Your task to perform on an android device: turn on location history Image 0: 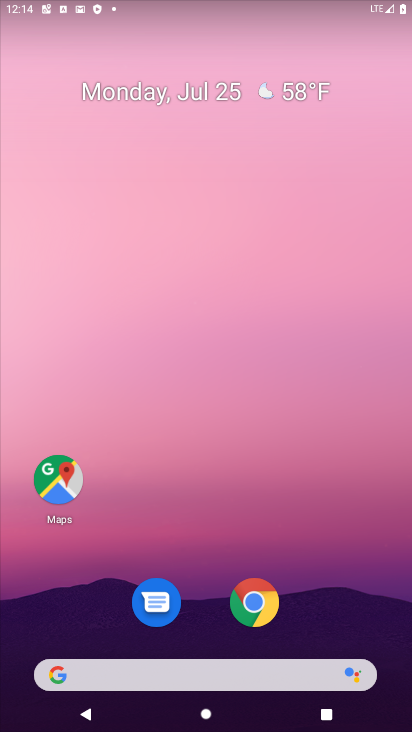
Step 0: drag from (203, 604) to (159, 182)
Your task to perform on an android device: turn on location history Image 1: 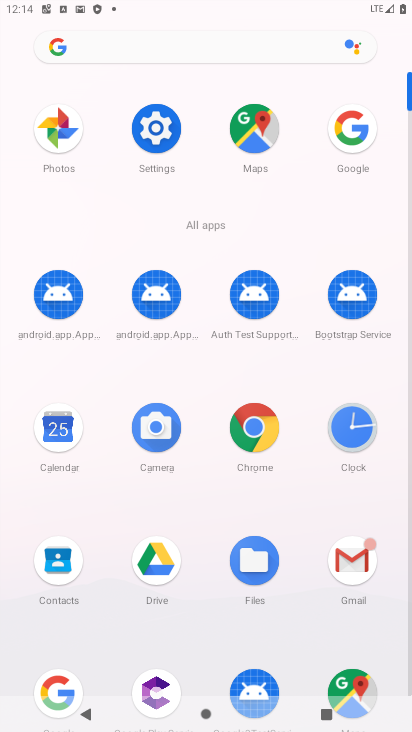
Step 1: click (182, 135)
Your task to perform on an android device: turn on location history Image 2: 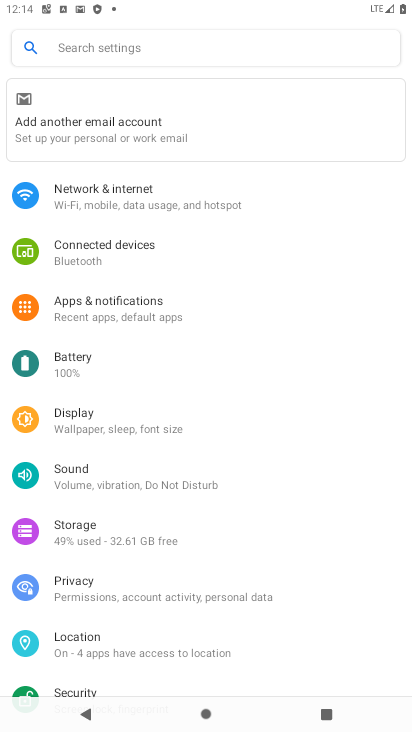
Step 2: drag from (191, 599) to (217, 274)
Your task to perform on an android device: turn on location history Image 3: 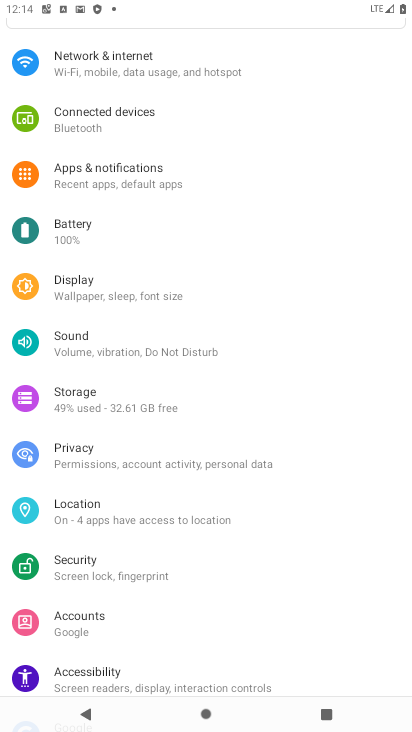
Step 3: click (105, 517)
Your task to perform on an android device: turn on location history Image 4: 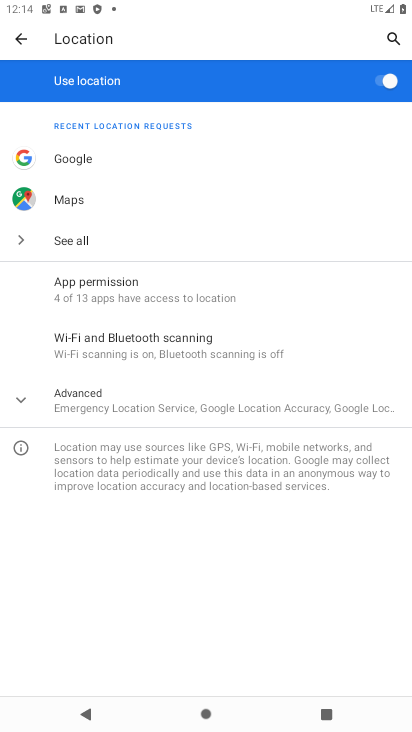
Step 4: click (134, 407)
Your task to perform on an android device: turn on location history Image 5: 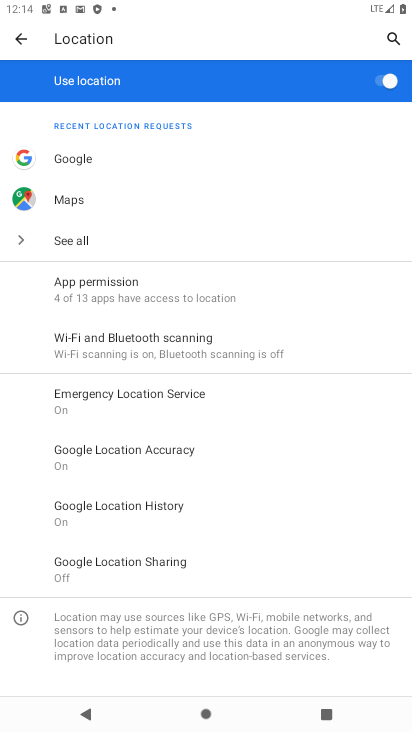
Step 5: click (182, 504)
Your task to perform on an android device: turn on location history Image 6: 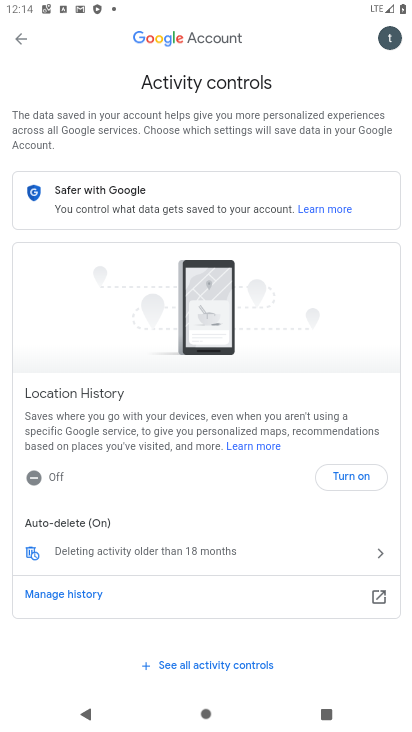
Step 6: click (343, 490)
Your task to perform on an android device: turn on location history Image 7: 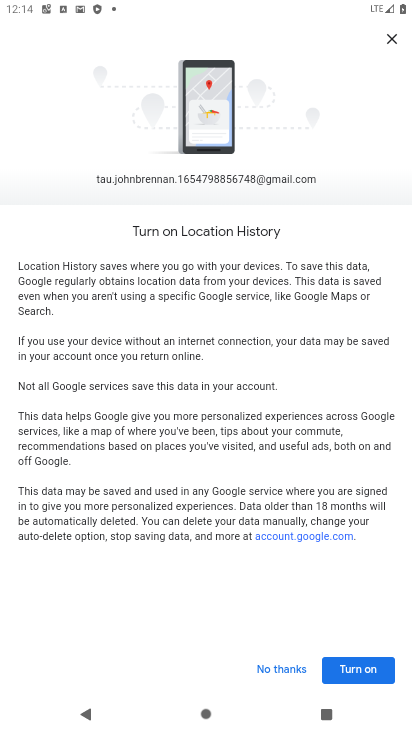
Step 7: click (343, 668)
Your task to perform on an android device: turn on location history Image 8: 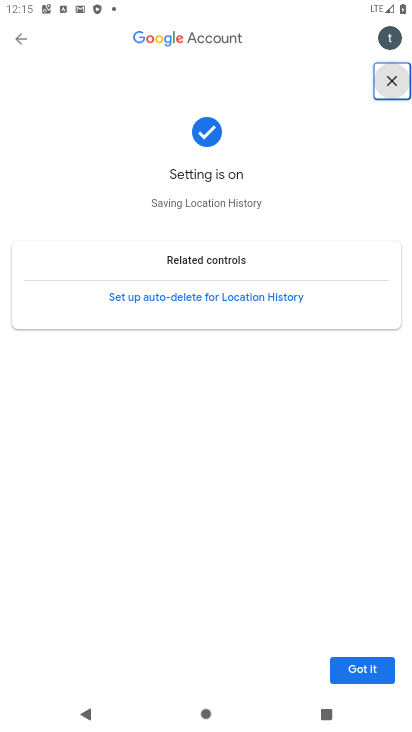
Step 8: task complete